Your task to perform on an android device: Search for sushi restaurants on Maps Image 0: 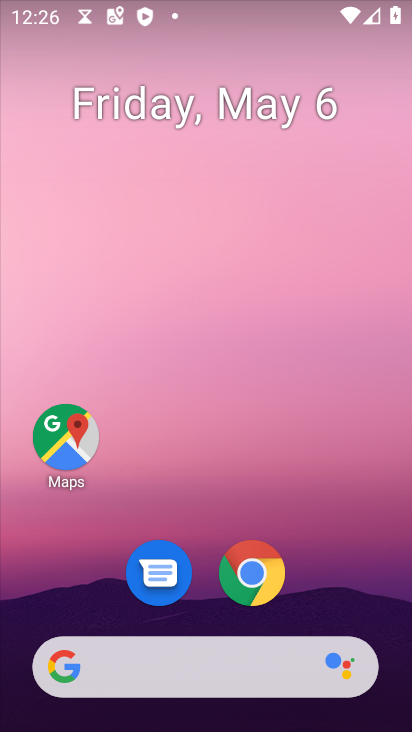
Step 0: drag from (344, 539) to (332, 265)
Your task to perform on an android device: Search for sushi restaurants on Maps Image 1: 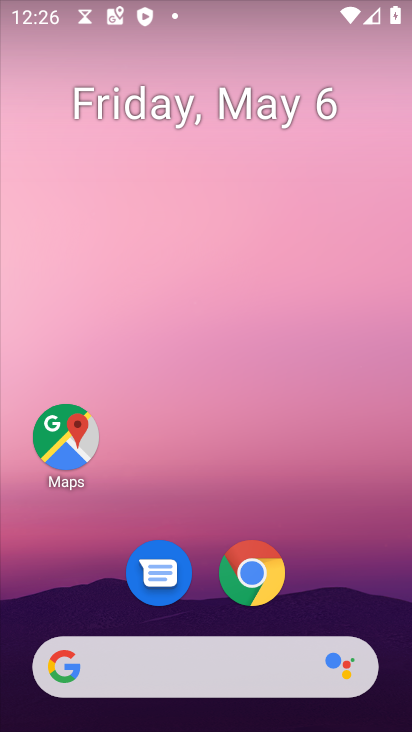
Step 1: drag from (323, 594) to (337, 245)
Your task to perform on an android device: Search for sushi restaurants on Maps Image 2: 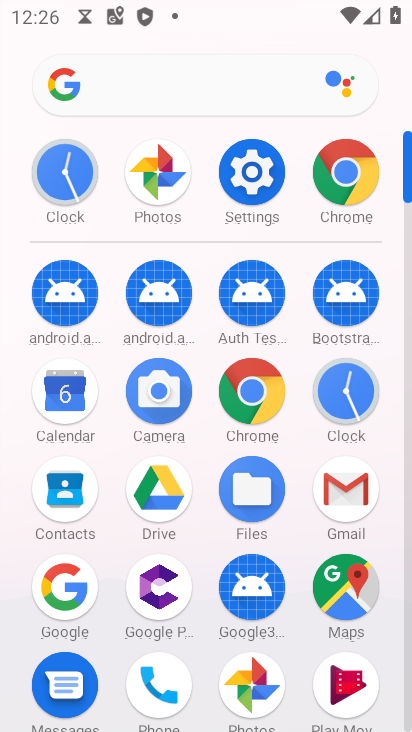
Step 2: click (346, 580)
Your task to perform on an android device: Search for sushi restaurants on Maps Image 3: 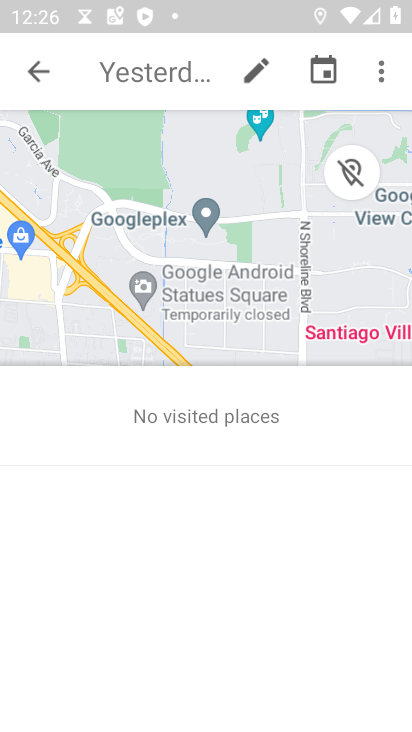
Step 3: click (40, 54)
Your task to perform on an android device: Search for sushi restaurants on Maps Image 4: 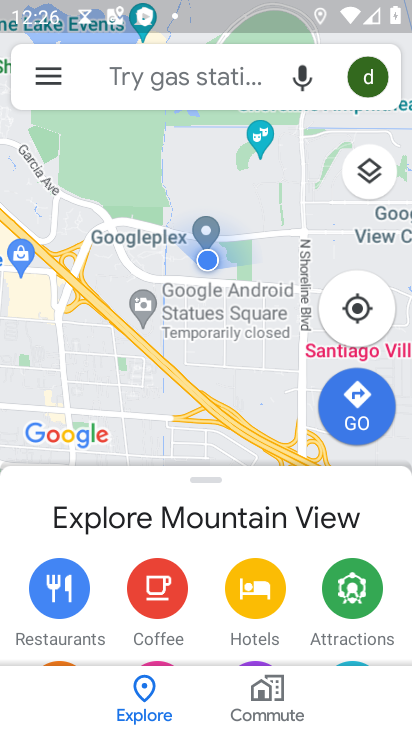
Step 4: click (197, 54)
Your task to perform on an android device: Search for sushi restaurants on Maps Image 5: 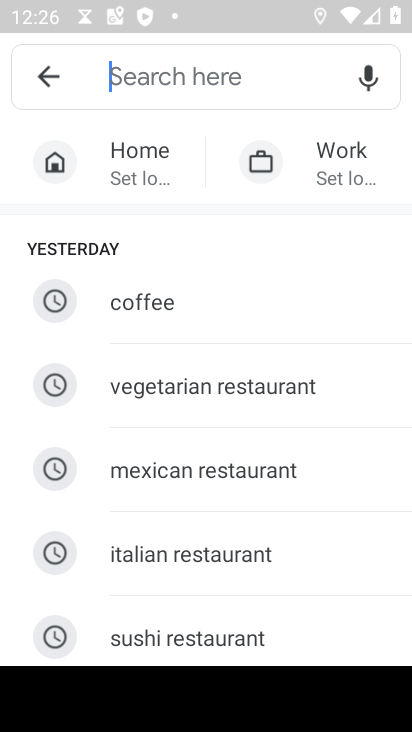
Step 5: type " sushi restaurants "
Your task to perform on an android device: Search for sushi restaurants on Maps Image 6: 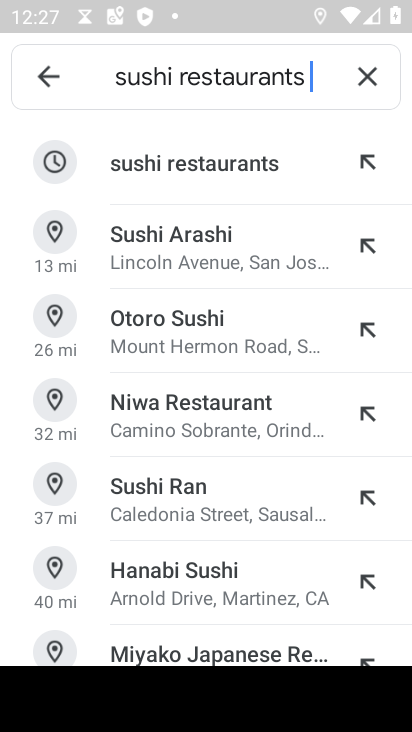
Step 6: click (233, 176)
Your task to perform on an android device: Search for sushi restaurants on Maps Image 7: 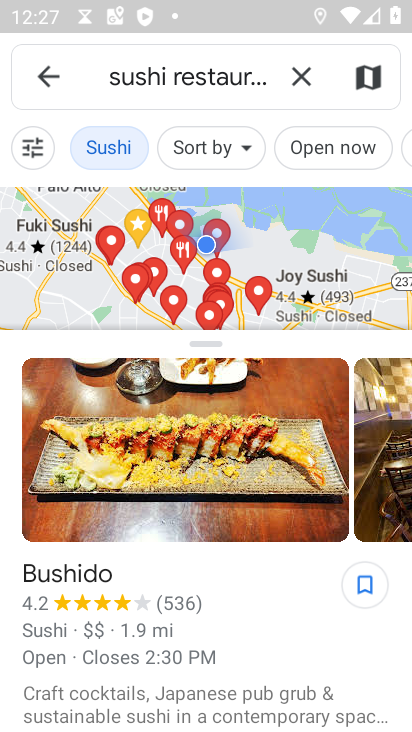
Step 7: task complete